Your task to perform on an android device: all mails in gmail Image 0: 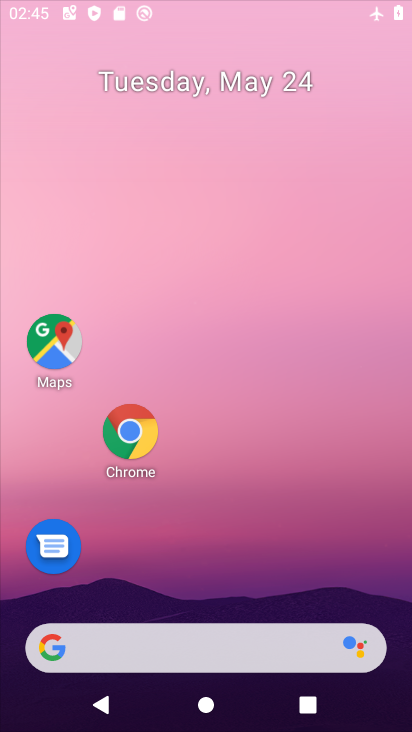
Step 0: drag from (254, 485) to (281, 347)
Your task to perform on an android device: all mails in gmail Image 1: 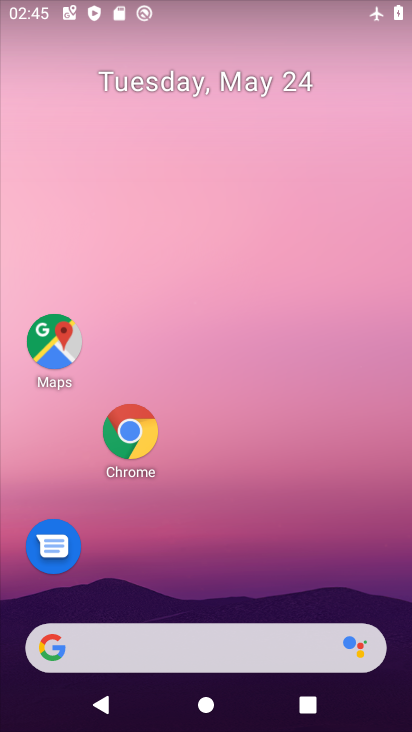
Step 1: drag from (265, 544) to (280, 460)
Your task to perform on an android device: all mails in gmail Image 2: 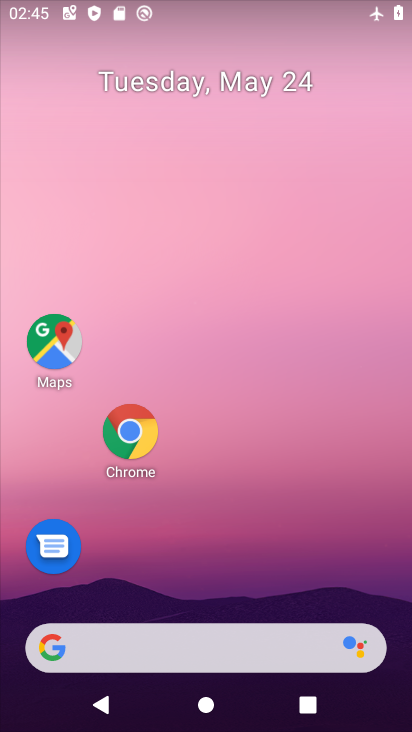
Step 2: drag from (197, 561) to (226, 116)
Your task to perform on an android device: all mails in gmail Image 3: 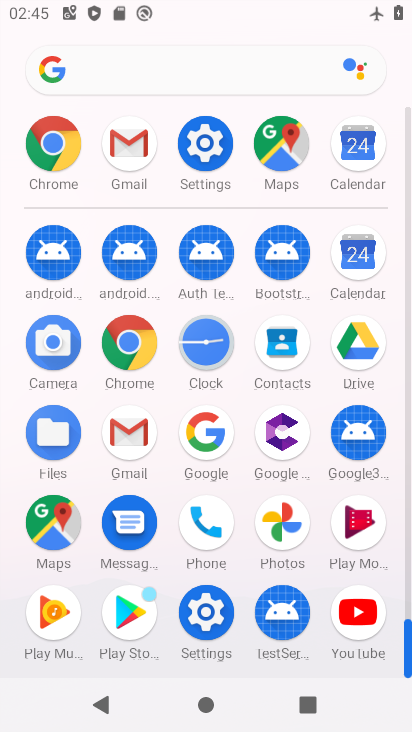
Step 3: click (130, 439)
Your task to perform on an android device: all mails in gmail Image 4: 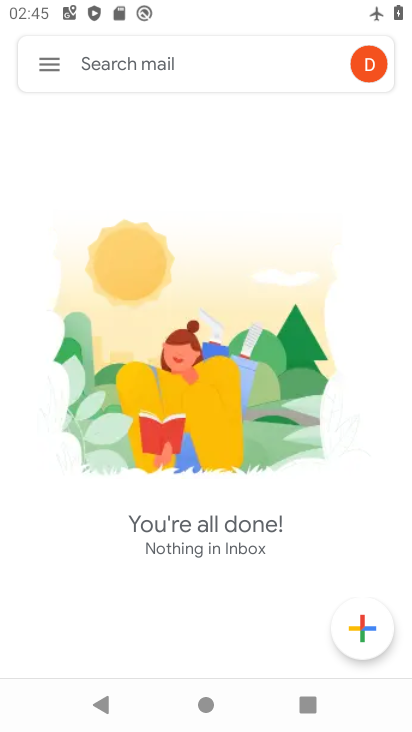
Step 4: click (56, 54)
Your task to perform on an android device: all mails in gmail Image 5: 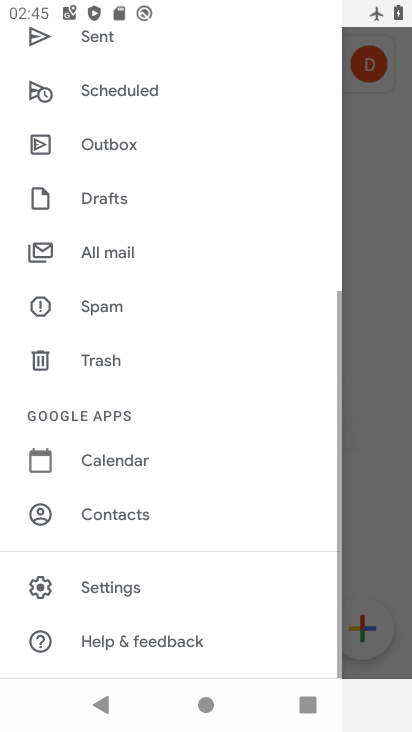
Step 5: drag from (158, 532) to (225, 257)
Your task to perform on an android device: all mails in gmail Image 6: 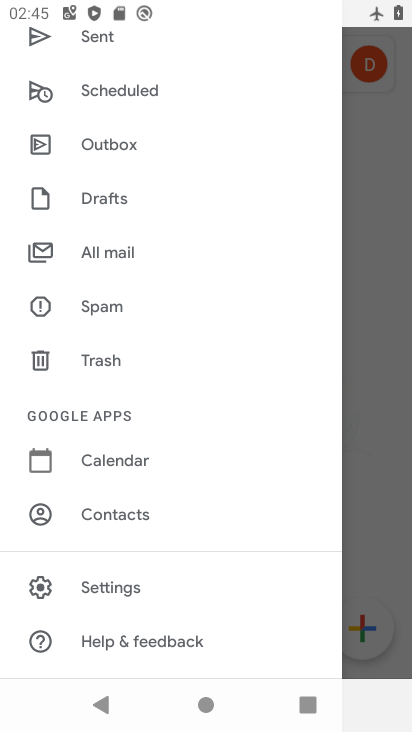
Step 6: click (141, 249)
Your task to perform on an android device: all mails in gmail Image 7: 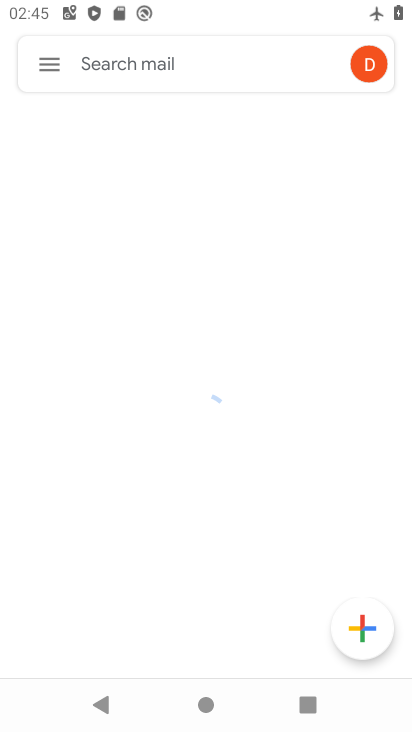
Step 7: task complete